Your task to perform on an android device: Show me popular games on the Play Store Image 0: 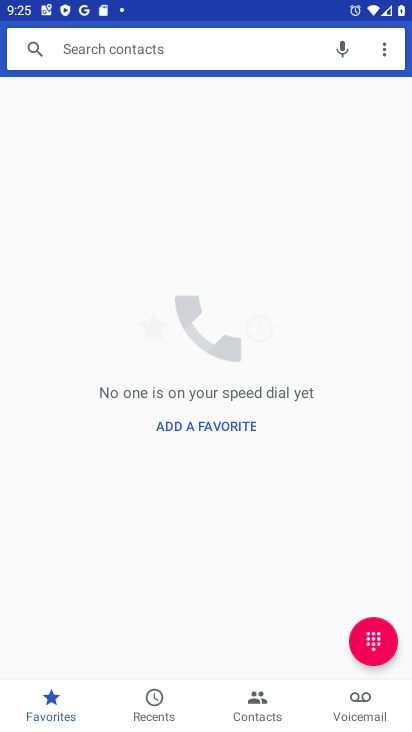
Step 0: press home button
Your task to perform on an android device: Show me popular games on the Play Store Image 1: 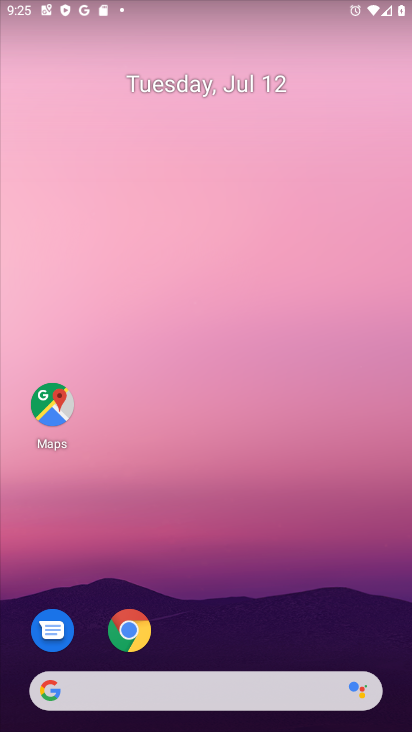
Step 1: drag from (245, 622) to (253, 96)
Your task to perform on an android device: Show me popular games on the Play Store Image 2: 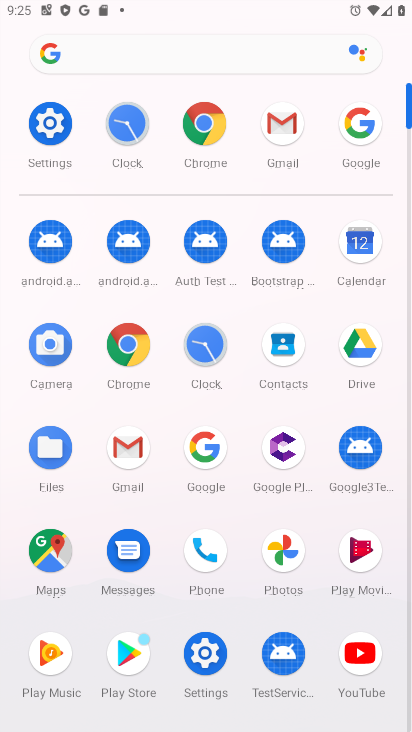
Step 2: click (131, 645)
Your task to perform on an android device: Show me popular games on the Play Store Image 3: 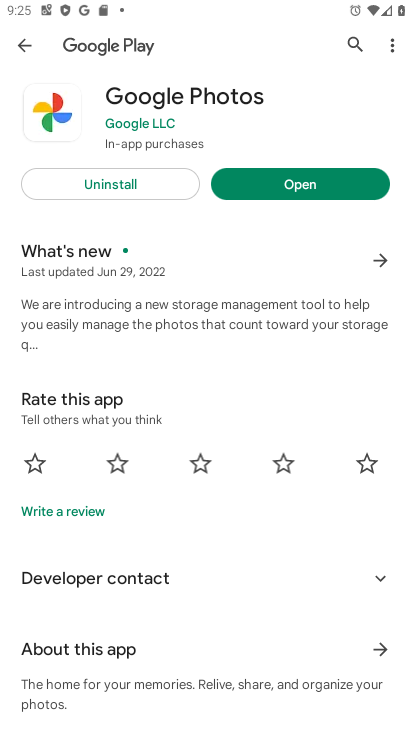
Step 3: press back button
Your task to perform on an android device: Show me popular games on the Play Store Image 4: 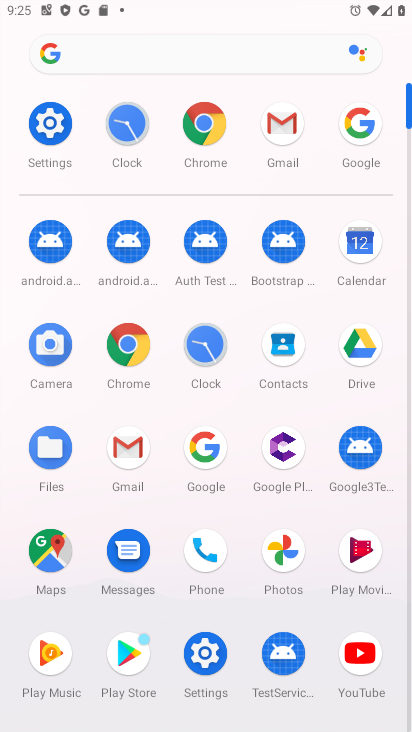
Step 4: click (136, 648)
Your task to perform on an android device: Show me popular games on the Play Store Image 5: 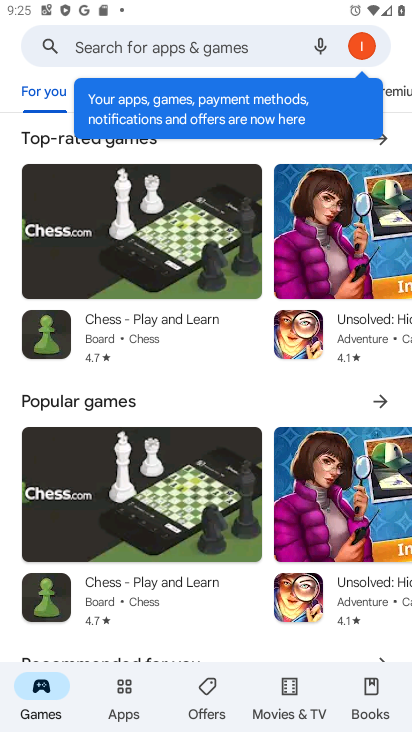
Step 5: click (373, 405)
Your task to perform on an android device: Show me popular games on the Play Store Image 6: 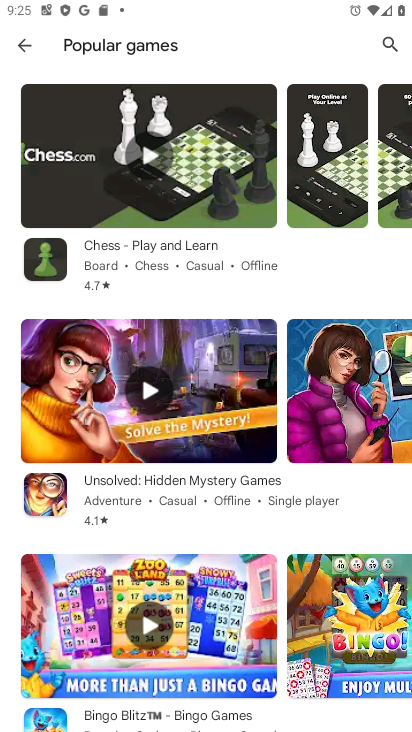
Step 6: task complete